Your task to perform on an android device: change text size in settings app Image 0: 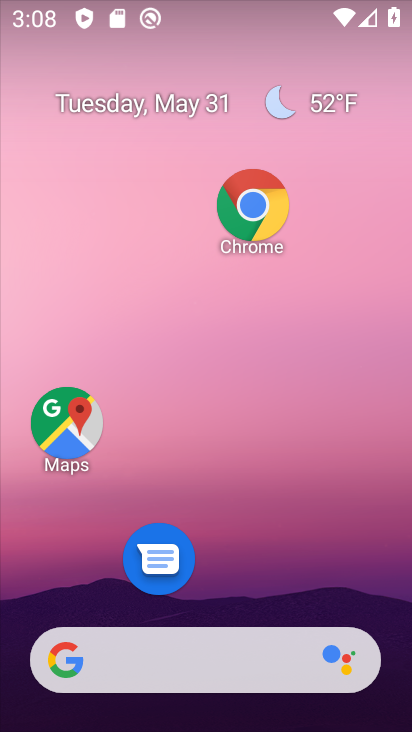
Step 0: drag from (213, 585) to (179, 209)
Your task to perform on an android device: change text size in settings app Image 1: 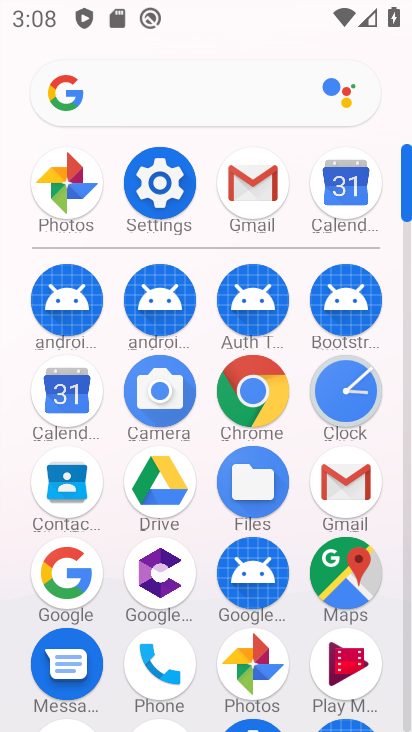
Step 1: click (169, 192)
Your task to perform on an android device: change text size in settings app Image 2: 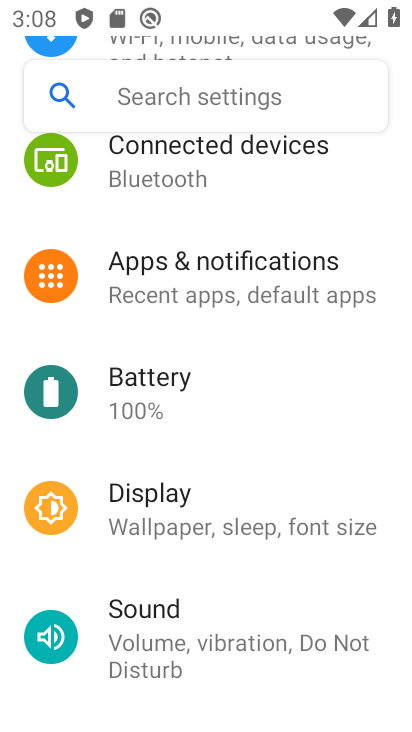
Step 2: drag from (239, 207) to (270, 539)
Your task to perform on an android device: change text size in settings app Image 3: 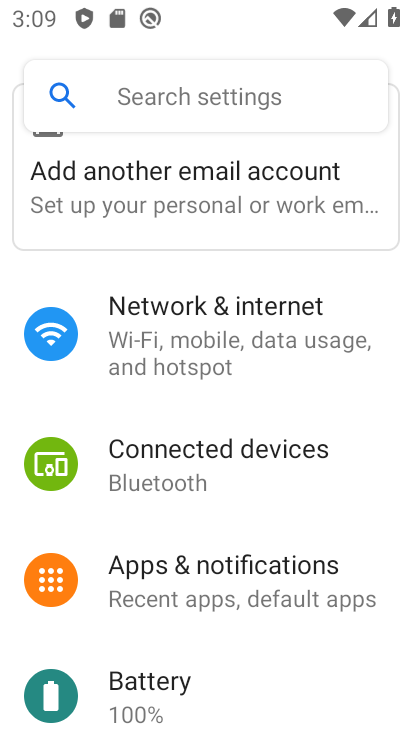
Step 3: drag from (221, 292) to (208, 329)
Your task to perform on an android device: change text size in settings app Image 4: 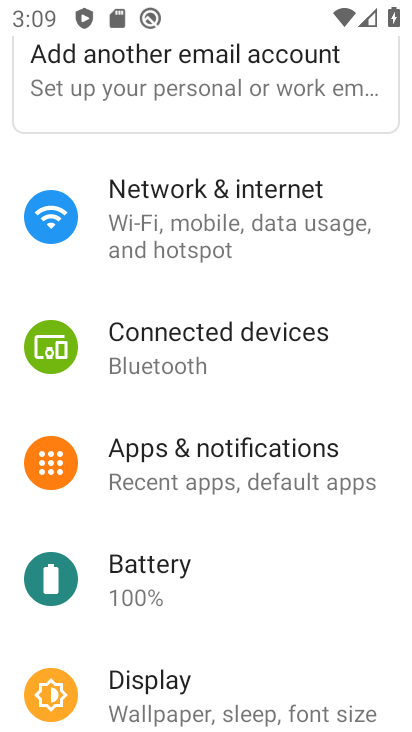
Step 4: click (186, 678)
Your task to perform on an android device: change text size in settings app Image 5: 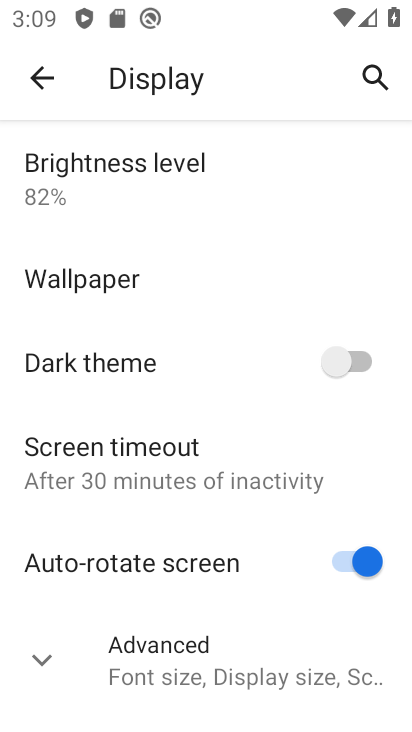
Step 5: drag from (192, 622) to (207, 475)
Your task to perform on an android device: change text size in settings app Image 6: 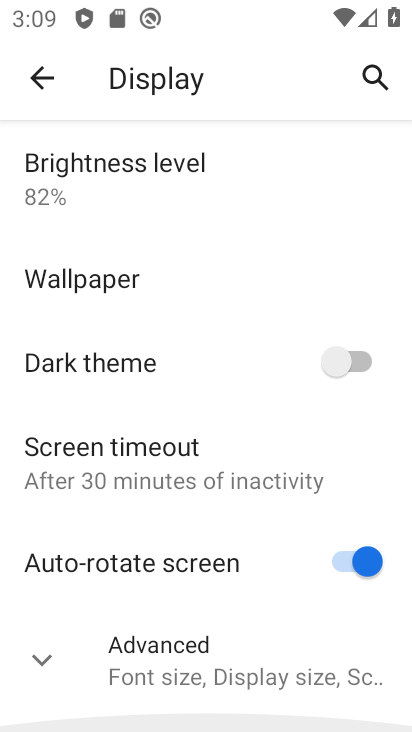
Step 6: click (186, 691)
Your task to perform on an android device: change text size in settings app Image 7: 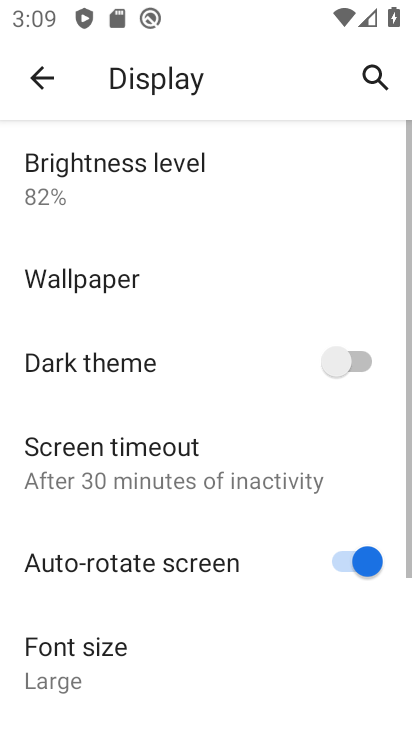
Step 7: drag from (186, 685) to (192, 377)
Your task to perform on an android device: change text size in settings app Image 8: 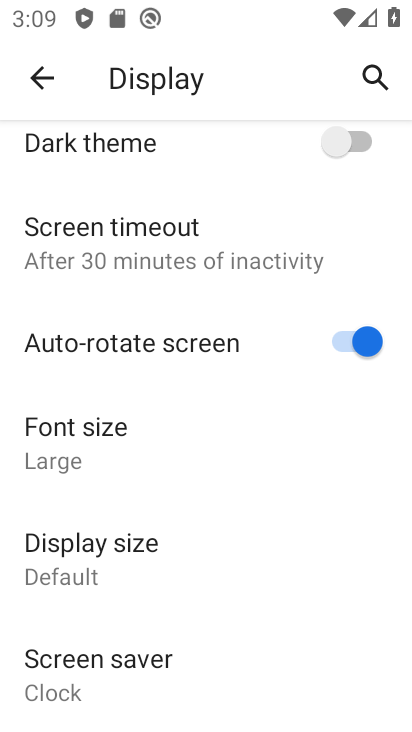
Step 8: click (169, 420)
Your task to perform on an android device: change text size in settings app Image 9: 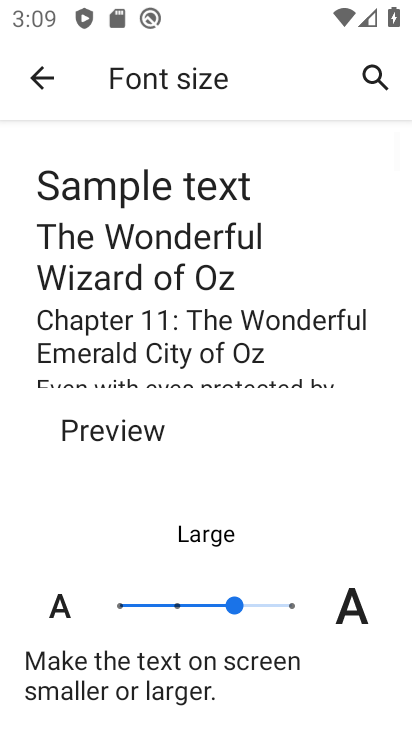
Step 9: click (115, 605)
Your task to perform on an android device: change text size in settings app Image 10: 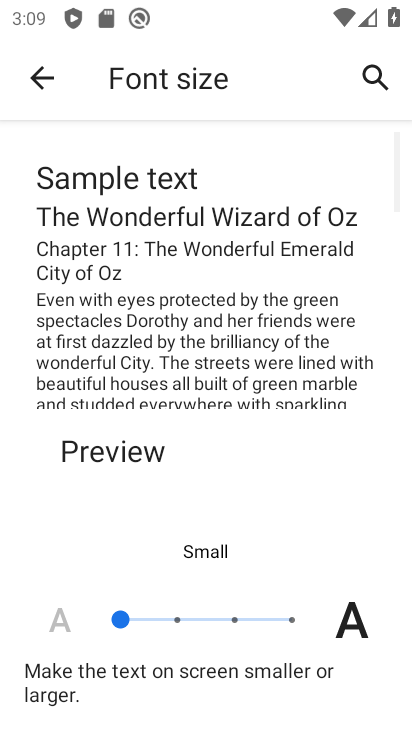
Step 10: task complete